Your task to perform on an android device: open wifi settings Image 0: 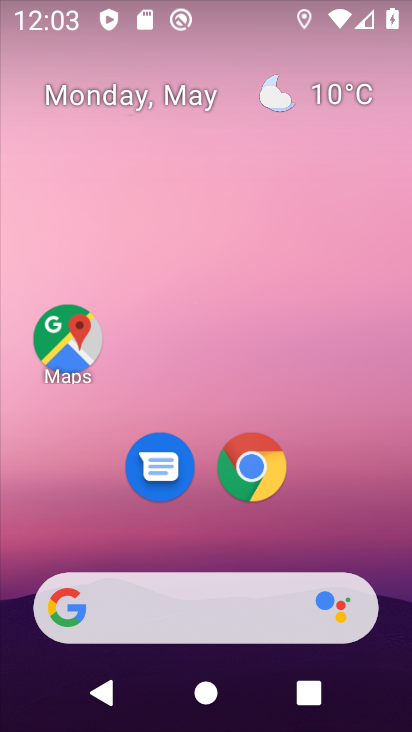
Step 0: drag from (357, 527) to (352, 131)
Your task to perform on an android device: open wifi settings Image 1: 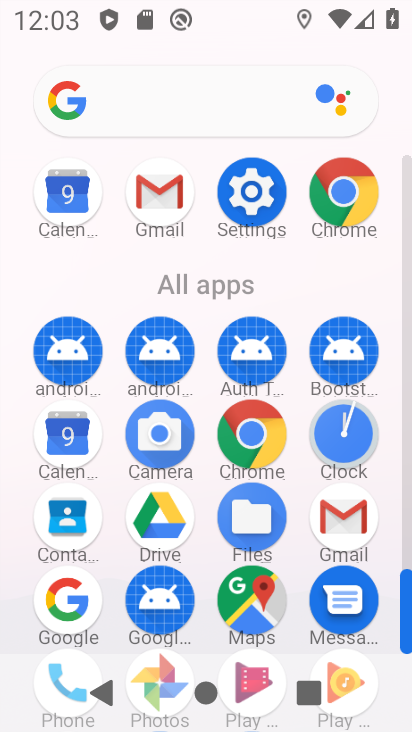
Step 1: click (253, 196)
Your task to perform on an android device: open wifi settings Image 2: 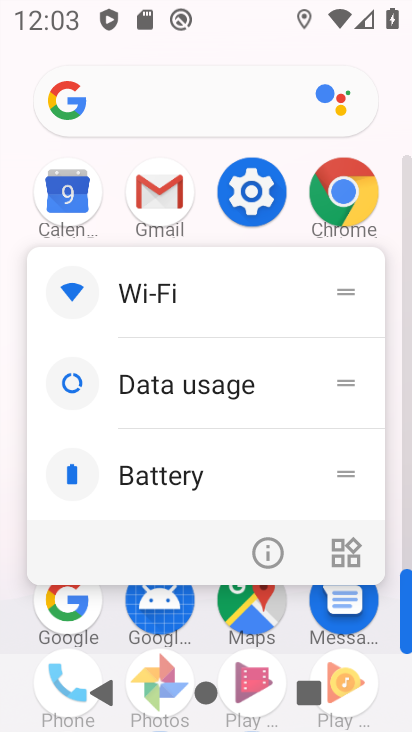
Step 2: click (169, 293)
Your task to perform on an android device: open wifi settings Image 3: 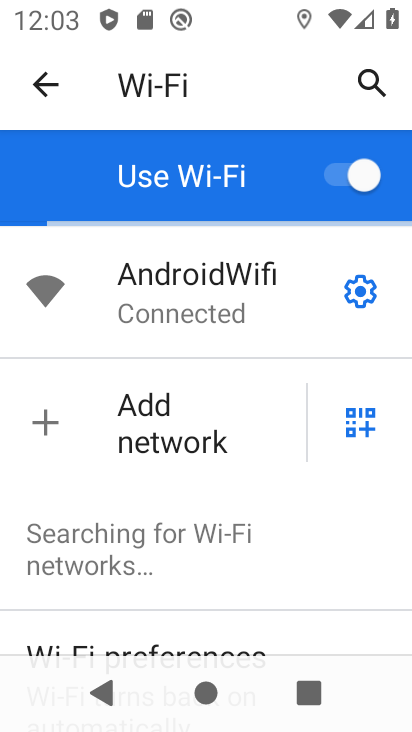
Step 3: click (359, 277)
Your task to perform on an android device: open wifi settings Image 4: 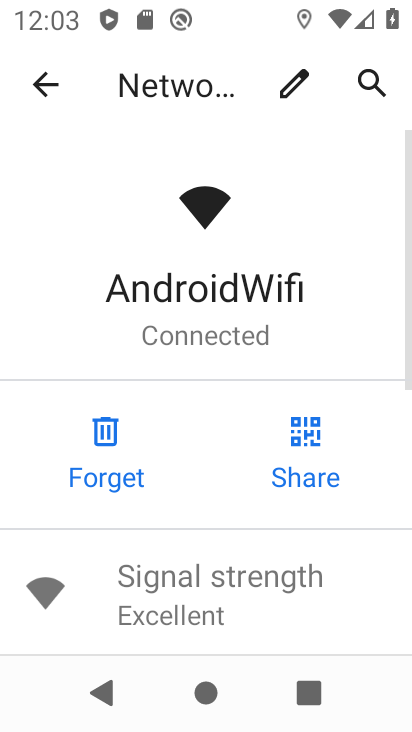
Step 4: task complete